Your task to perform on an android device: set default search engine in the chrome app Image 0: 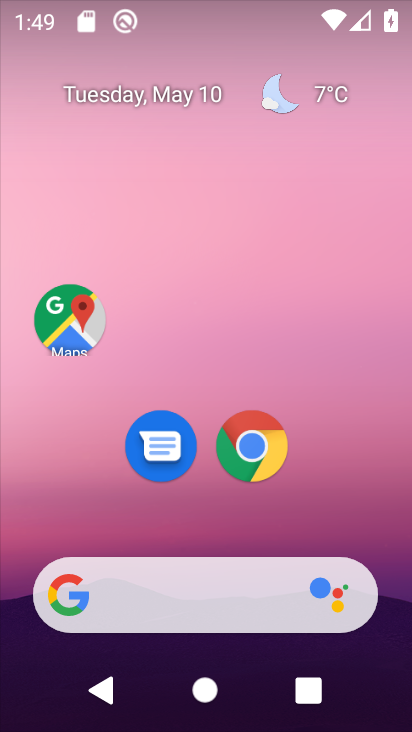
Step 0: click (254, 464)
Your task to perform on an android device: set default search engine in the chrome app Image 1: 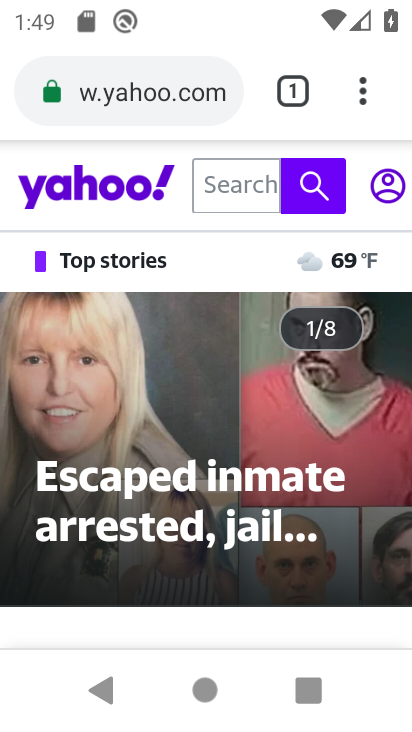
Step 1: drag from (363, 95) to (206, 471)
Your task to perform on an android device: set default search engine in the chrome app Image 2: 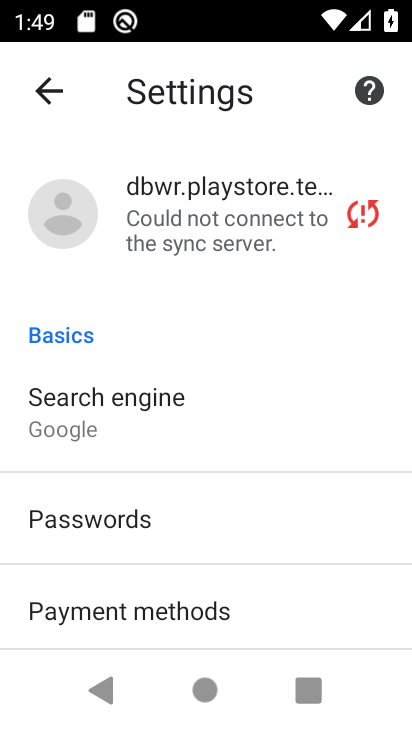
Step 2: click (165, 435)
Your task to perform on an android device: set default search engine in the chrome app Image 3: 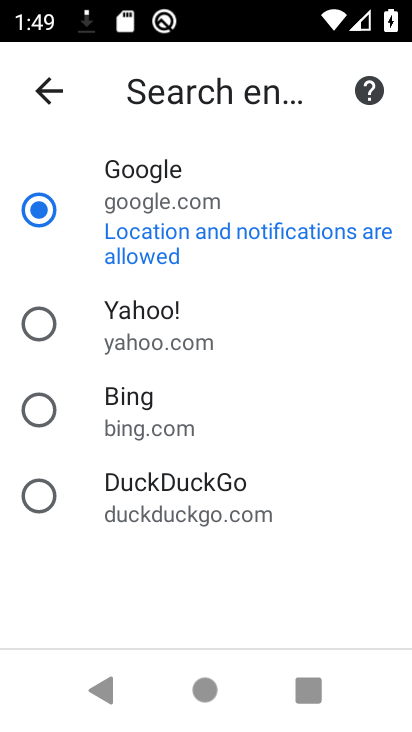
Step 3: click (165, 416)
Your task to perform on an android device: set default search engine in the chrome app Image 4: 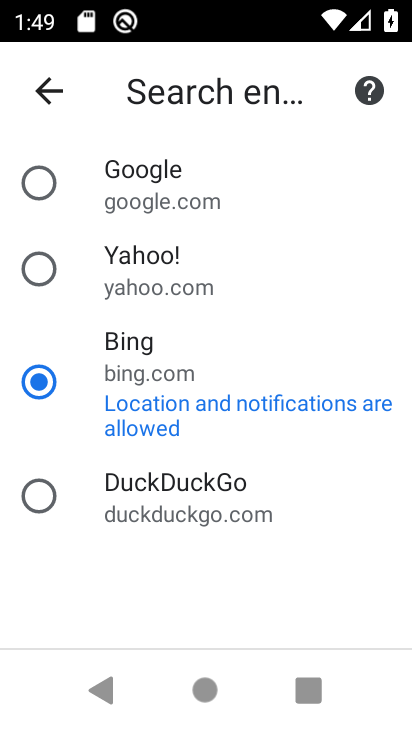
Step 4: task complete